Your task to perform on an android device: turn off smart reply in the gmail app Image 0: 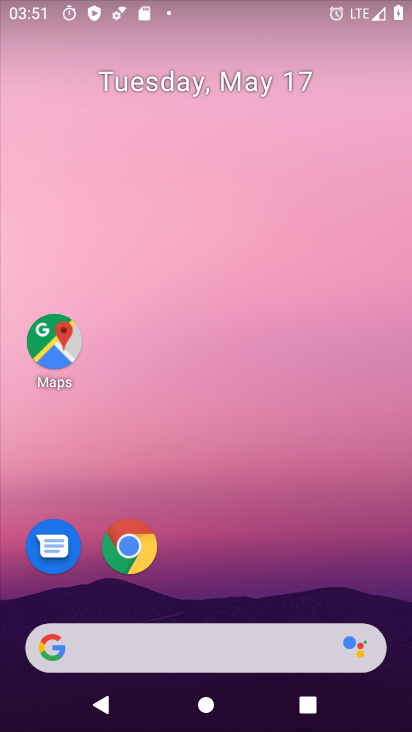
Step 0: drag from (275, 545) to (271, 86)
Your task to perform on an android device: turn off smart reply in the gmail app Image 1: 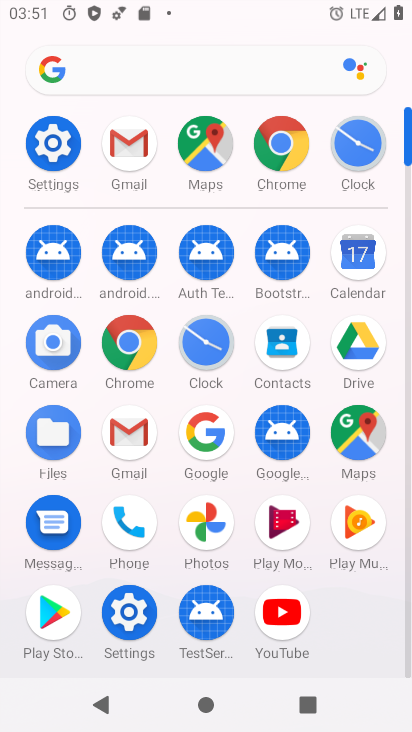
Step 1: click (143, 138)
Your task to perform on an android device: turn off smart reply in the gmail app Image 2: 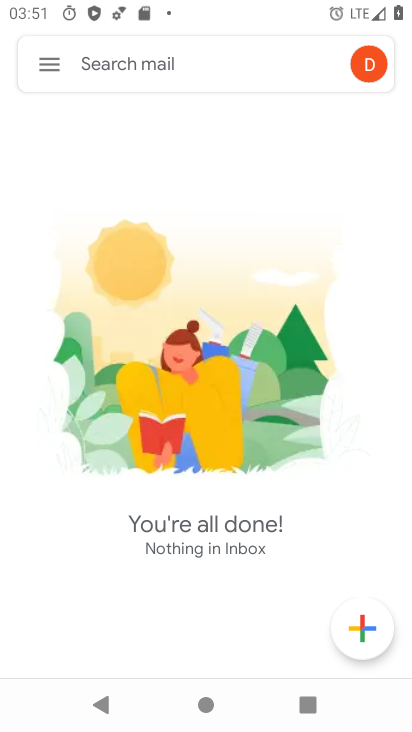
Step 2: click (49, 66)
Your task to perform on an android device: turn off smart reply in the gmail app Image 3: 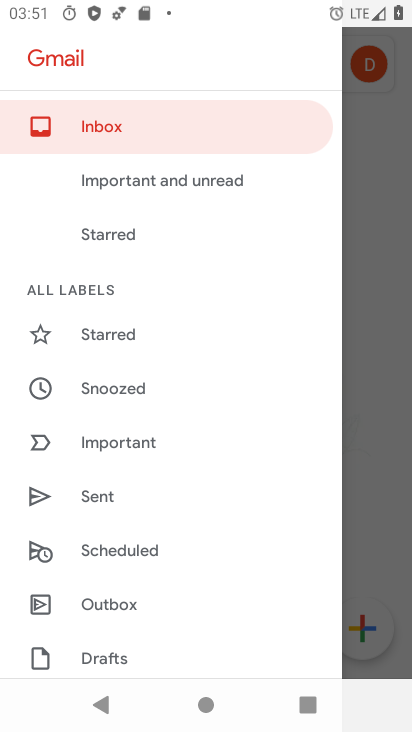
Step 3: drag from (150, 556) to (156, 392)
Your task to perform on an android device: turn off smart reply in the gmail app Image 4: 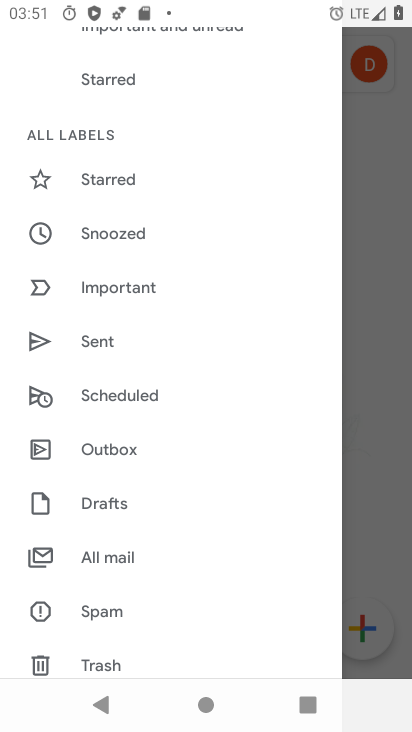
Step 4: drag from (88, 642) to (136, 324)
Your task to perform on an android device: turn off smart reply in the gmail app Image 5: 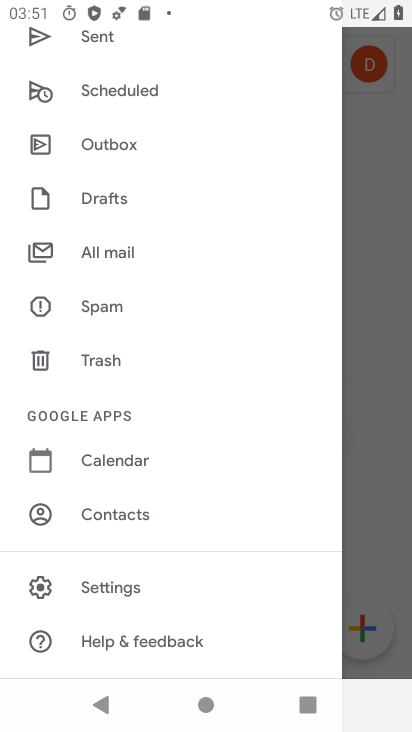
Step 5: click (137, 578)
Your task to perform on an android device: turn off smart reply in the gmail app Image 6: 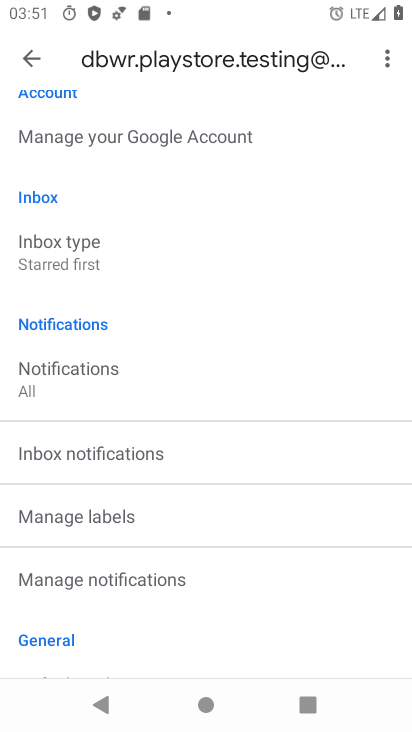
Step 6: drag from (252, 606) to (242, 262)
Your task to perform on an android device: turn off smart reply in the gmail app Image 7: 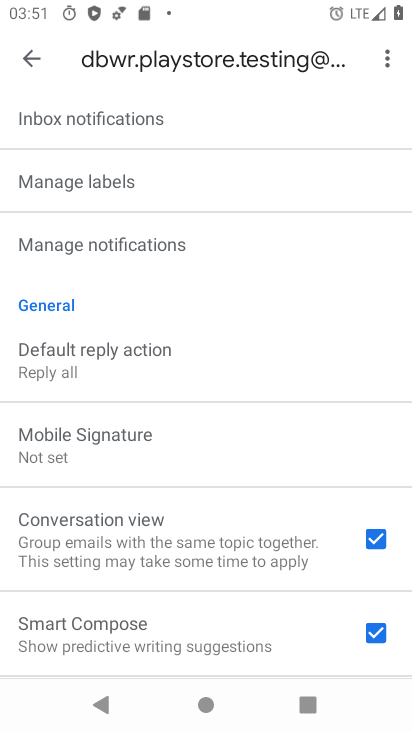
Step 7: drag from (153, 539) to (170, 277)
Your task to perform on an android device: turn off smart reply in the gmail app Image 8: 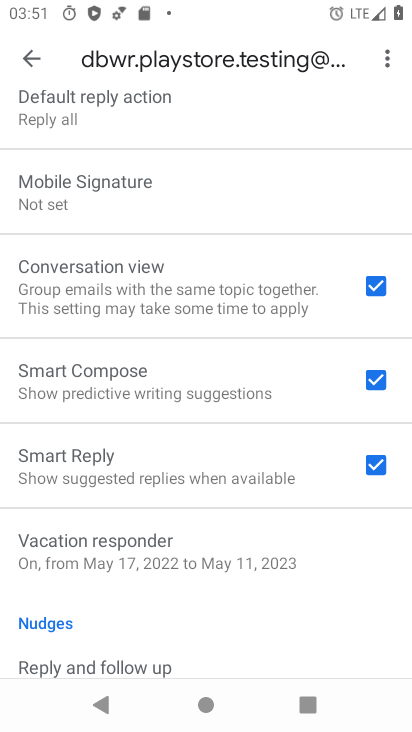
Step 8: click (176, 464)
Your task to perform on an android device: turn off smart reply in the gmail app Image 9: 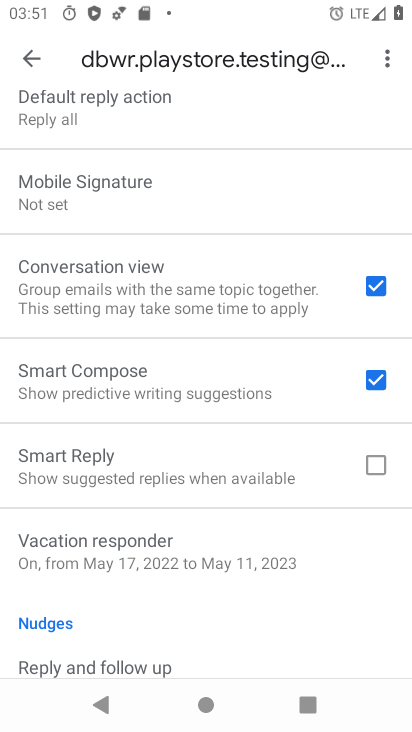
Step 9: task complete